Your task to perform on an android device: create a new album in the google photos Image 0: 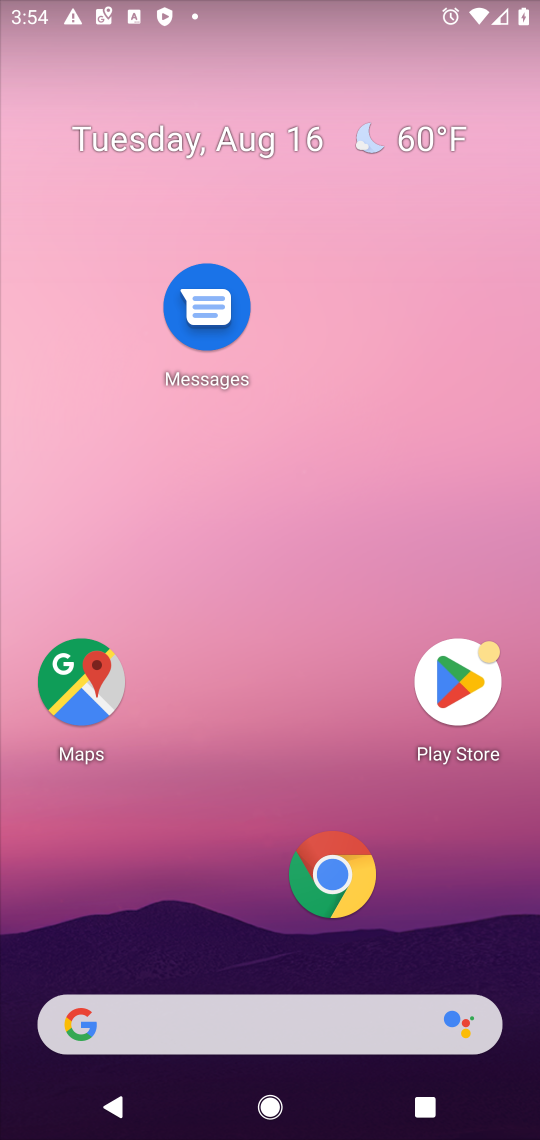
Step 0: drag from (262, 938) to (272, 0)
Your task to perform on an android device: create a new album in the google photos Image 1: 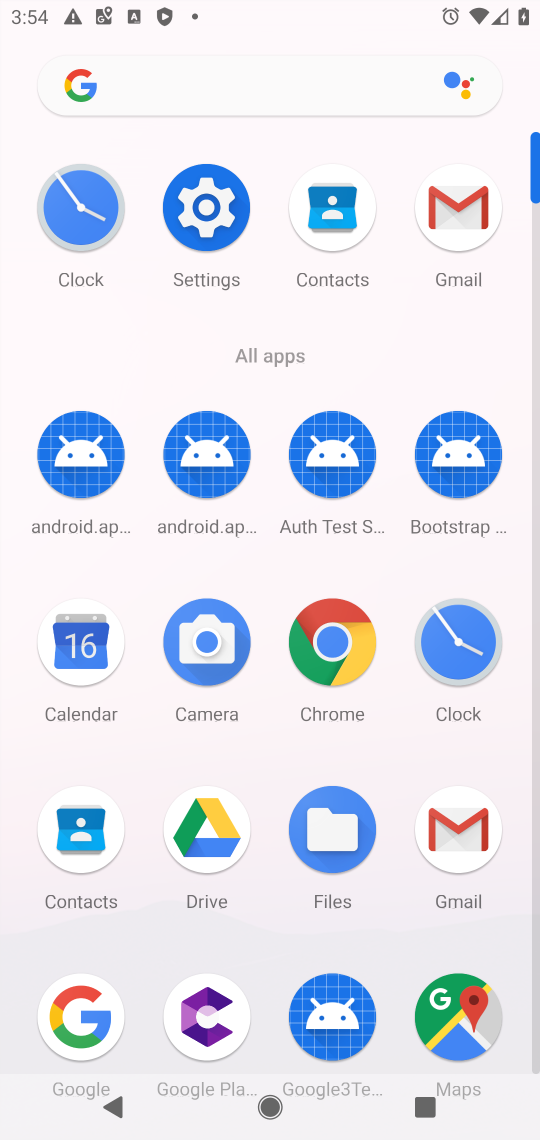
Step 1: drag from (276, 930) to (349, 291)
Your task to perform on an android device: create a new album in the google photos Image 2: 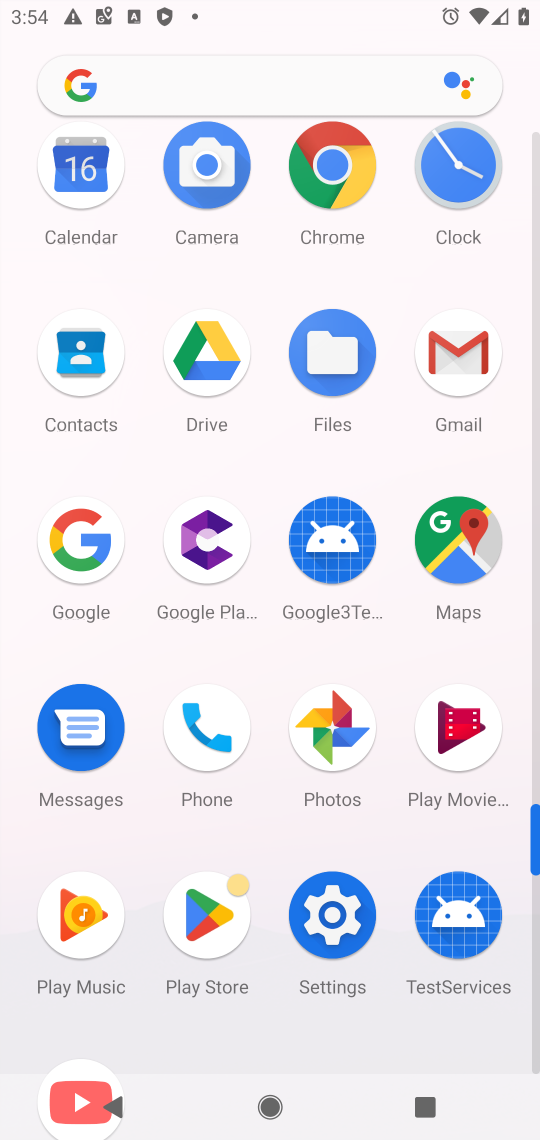
Step 2: click (330, 732)
Your task to perform on an android device: create a new album in the google photos Image 3: 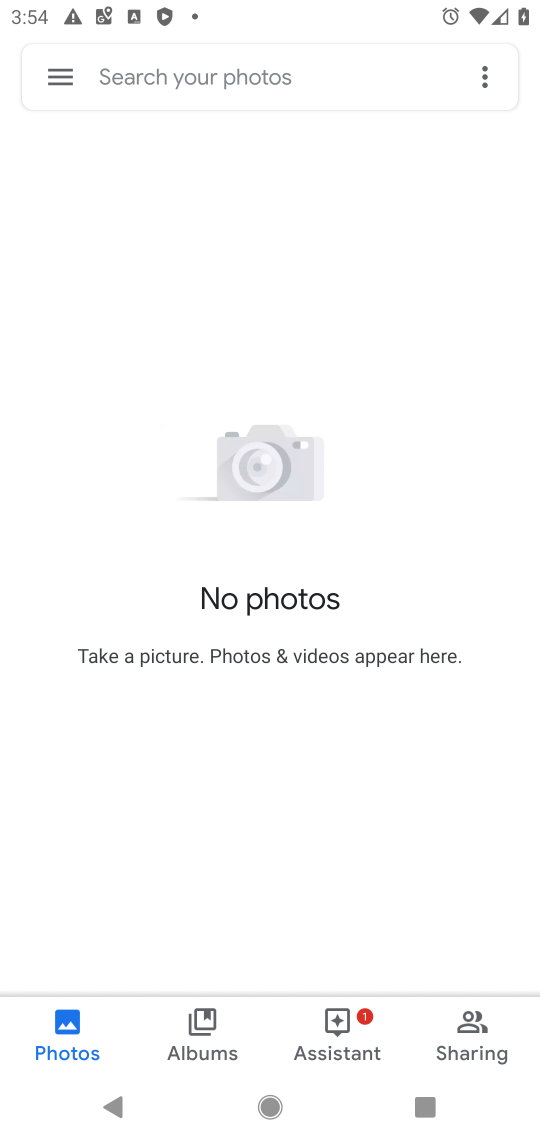
Step 3: task complete